Your task to perform on an android device: Add "sony triple a" to the cart on newegg.com, then select checkout. Image 0: 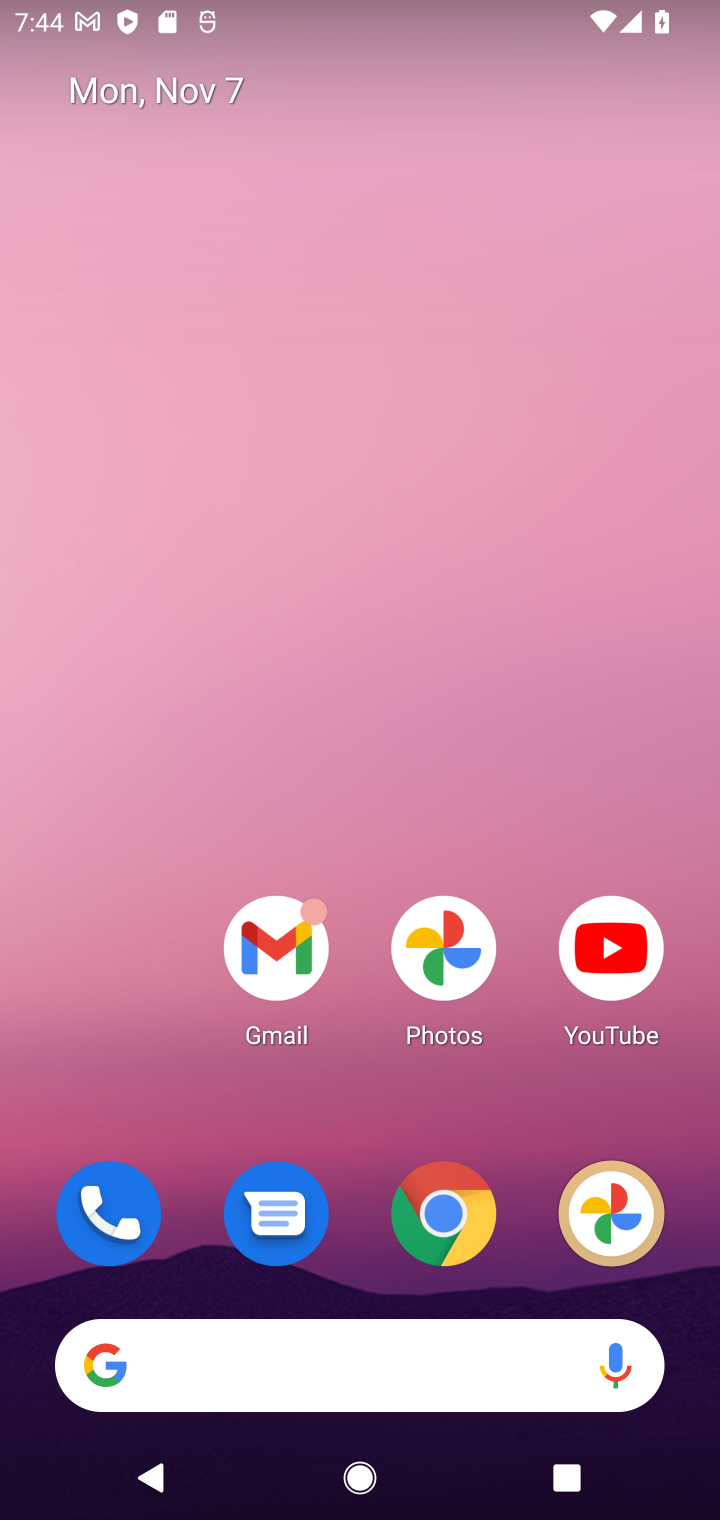
Step 0: click (456, 1216)
Your task to perform on an android device: Add "sony triple a" to the cart on newegg.com, then select checkout. Image 1: 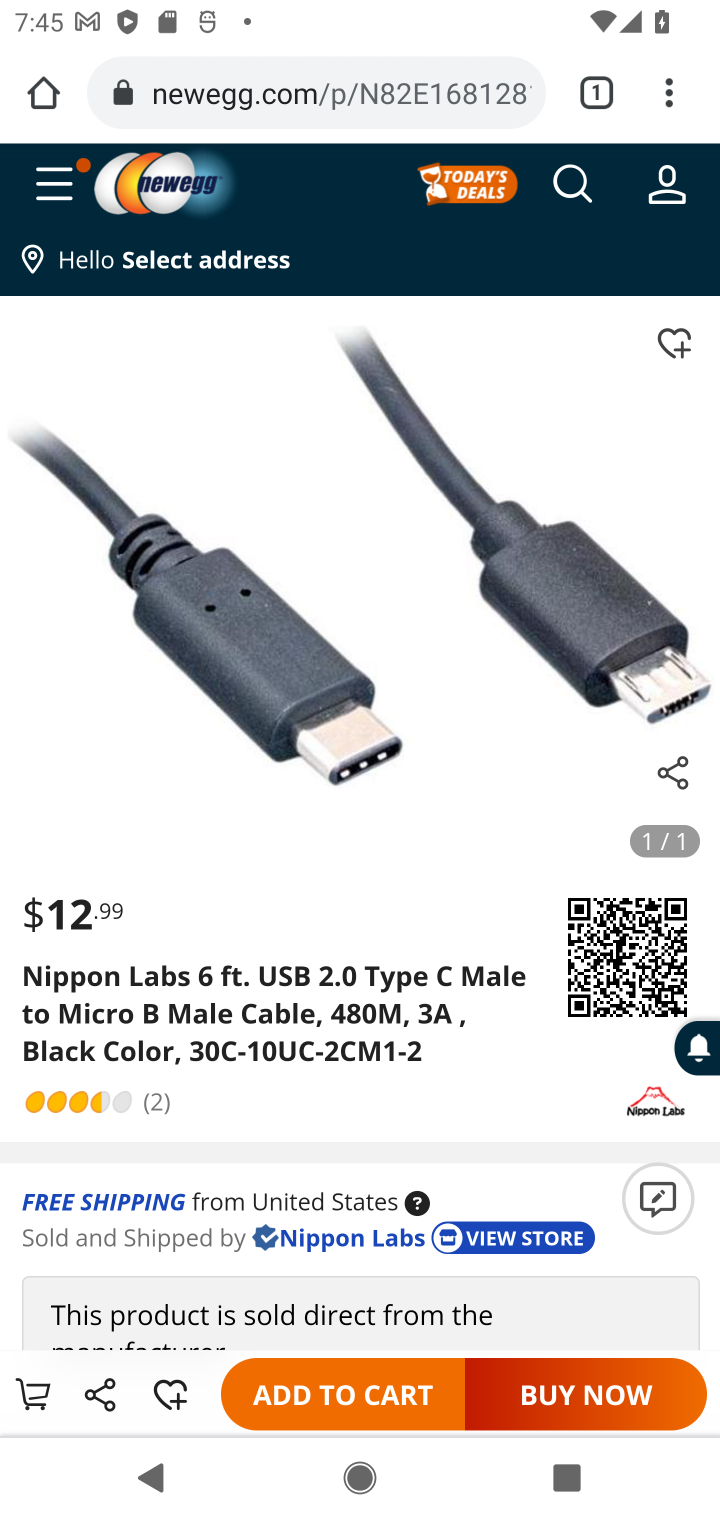
Step 1: click (570, 181)
Your task to perform on an android device: Add "sony triple a" to the cart on newegg.com, then select checkout. Image 2: 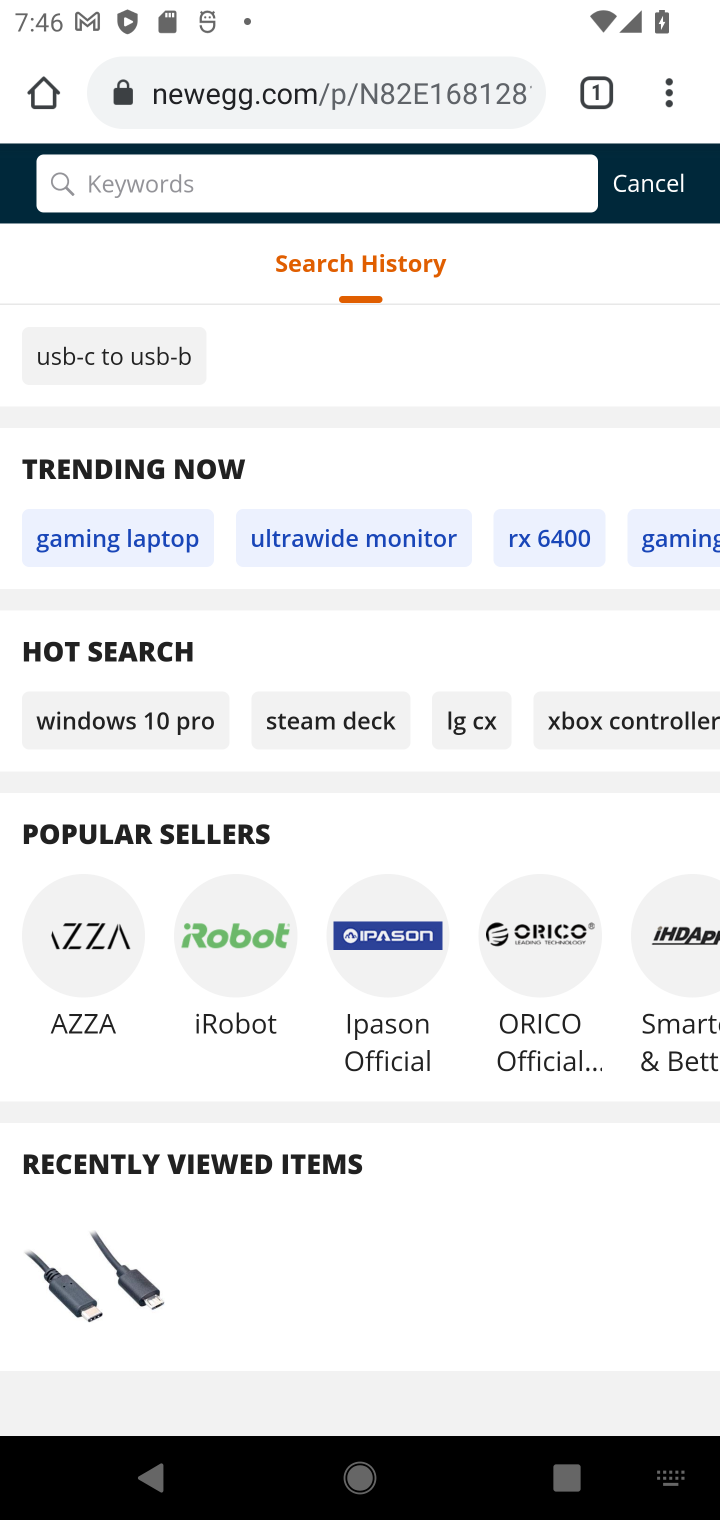
Step 2: type "sony triple a"
Your task to perform on an android device: Add "sony triple a" to the cart on newegg.com, then select checkout. Image 3: 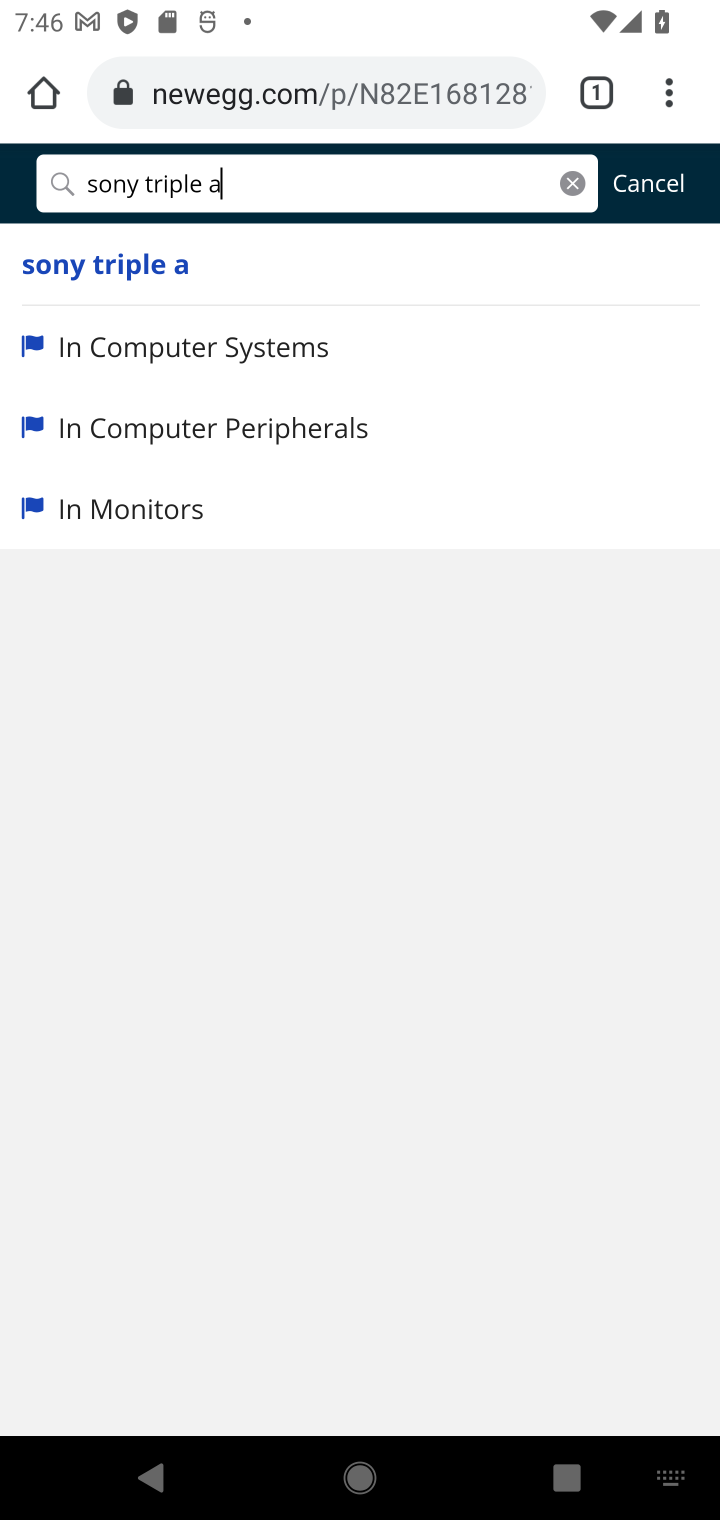
Step 3: click (96, 270)
Your task to perform on an android device: Add "sony triple a" to the cart on newegg.com, then select checkout. Image 4: 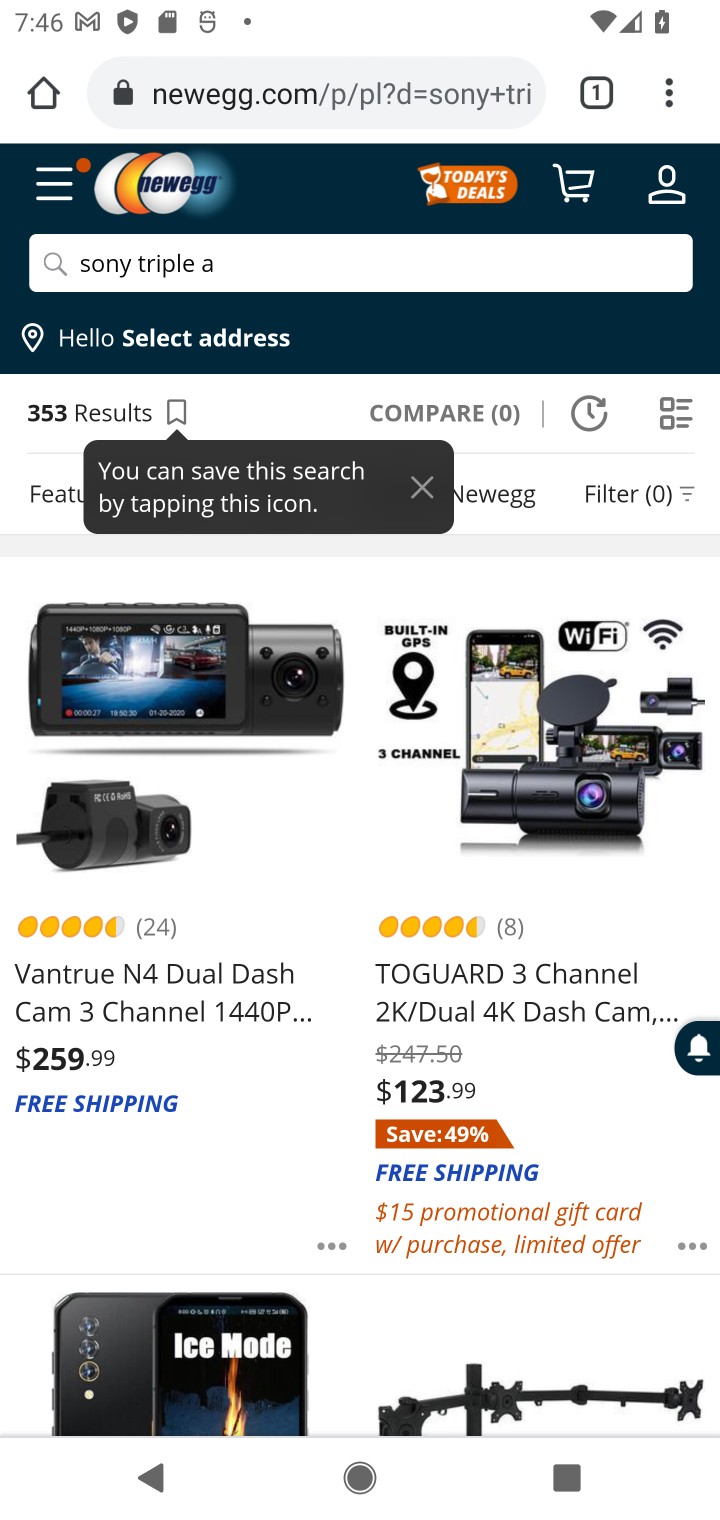
Step 4: task complete